Your task to perform on an android device: toggle wifi Image 0: 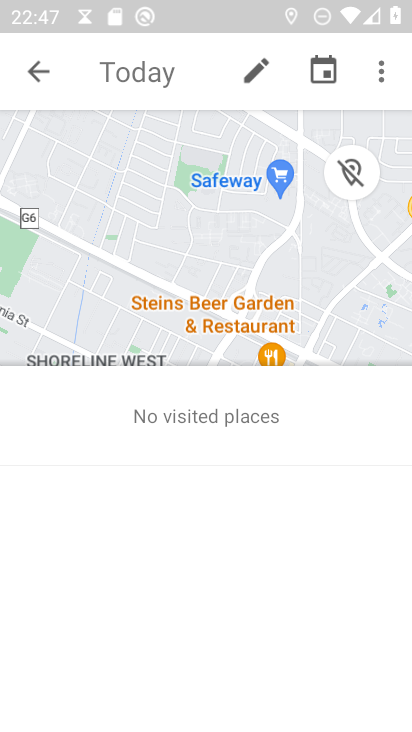
Step 0: press home button
Your task to perform on an android device: toggle wifi Image 1: 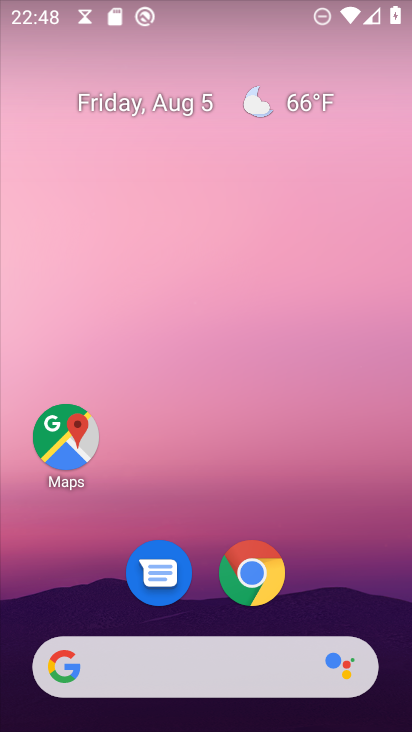
Step 1: drag from (197, 670) to (209, 90)
Your task to perform on an android device: toggle wifi Image 2: 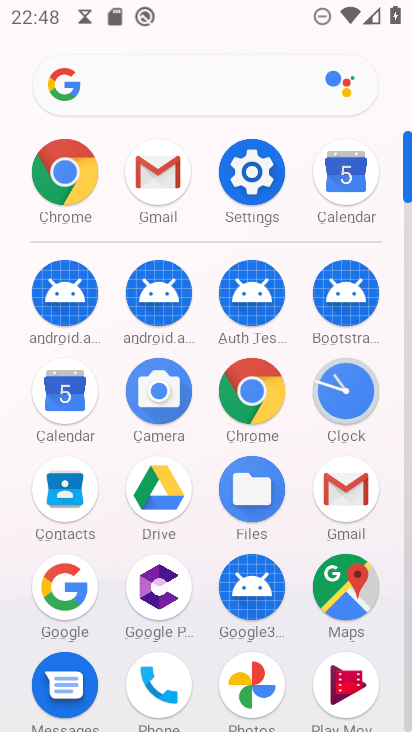
Step 2: click (251, 169)
Your task to perform on an android device: toggle wifi Image 3: 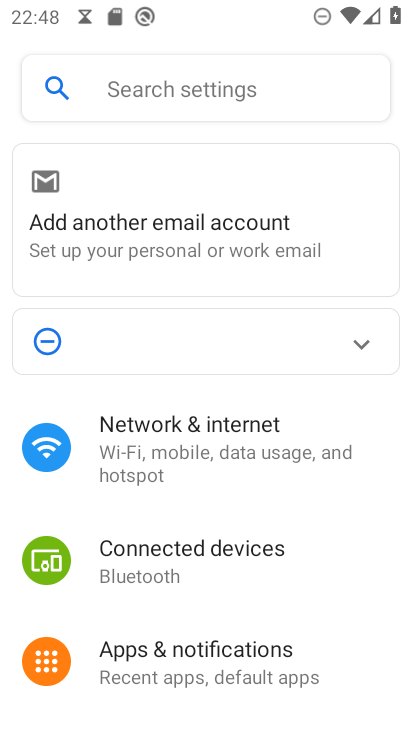
Step 3: click (191, 454)
Your task to perform on an android device: toggle wifi Image 4: 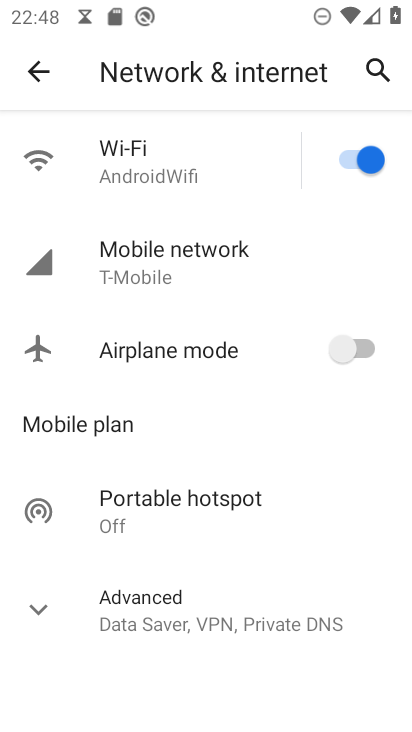
Step 4: click (359, 165)
Your task to perform on an android device: toggle wifi Image 5: 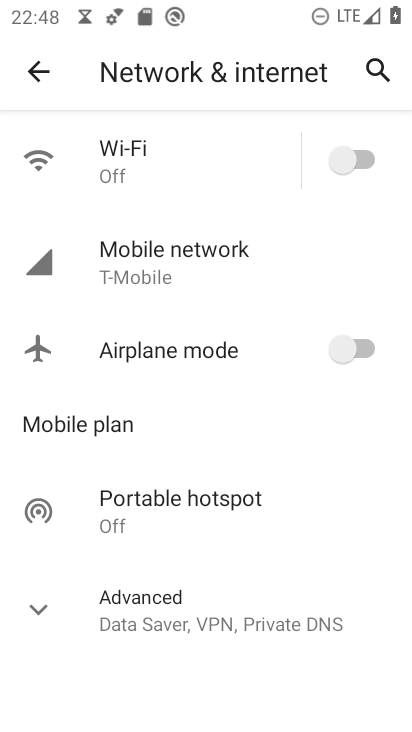
Step 5: task complete